Your task to perform on an android device: turn on airplane mode Image 0: 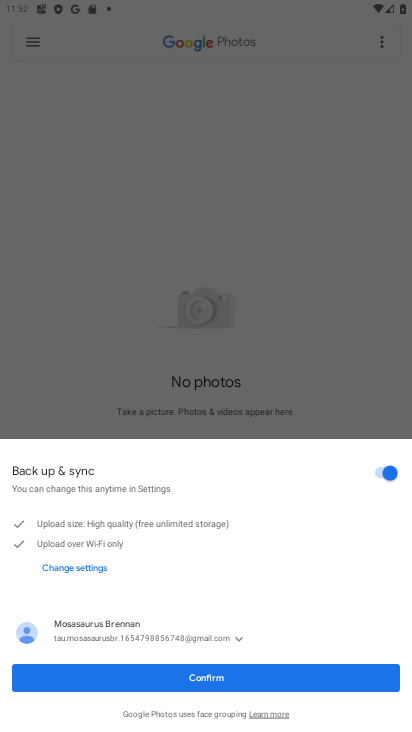
Step 0: press home button
Your task to perform on an android device: turn on airplane mode Image 1: 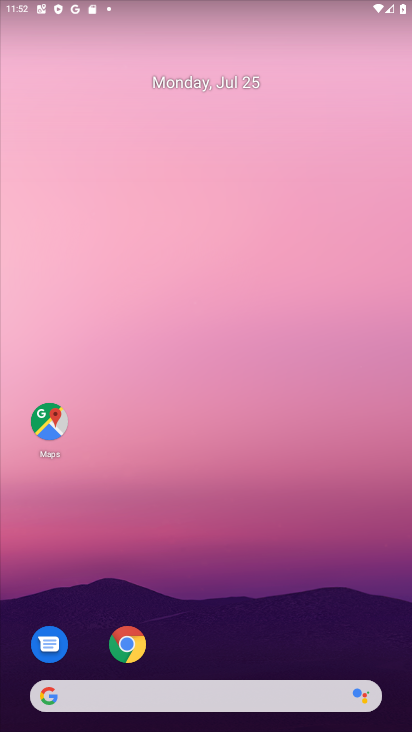
Step 1: drag from (249, 670) to (246, 0)
Your task to perform on an android device: turn on airplane mode Image 2: 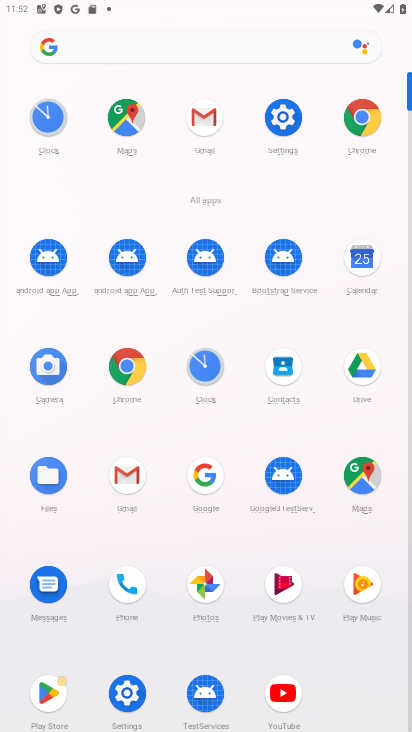
Step 2: click (280, 118)
Your task to perform on an android device: turn on airplane mode Image 3: 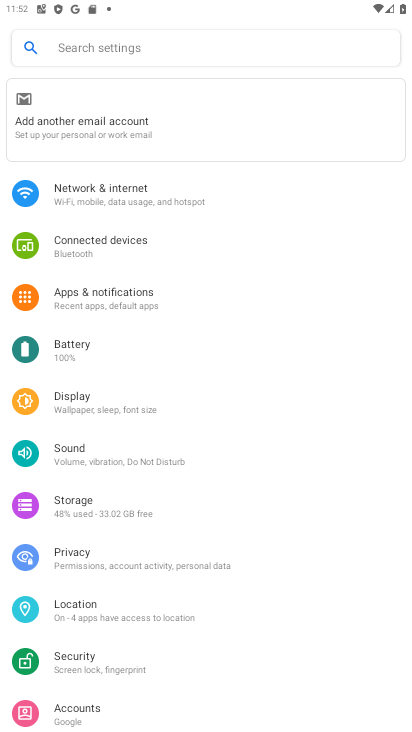
Step 3: click (111, 198)
Your task to perform on an android device: turn on airplane mode Image 4: 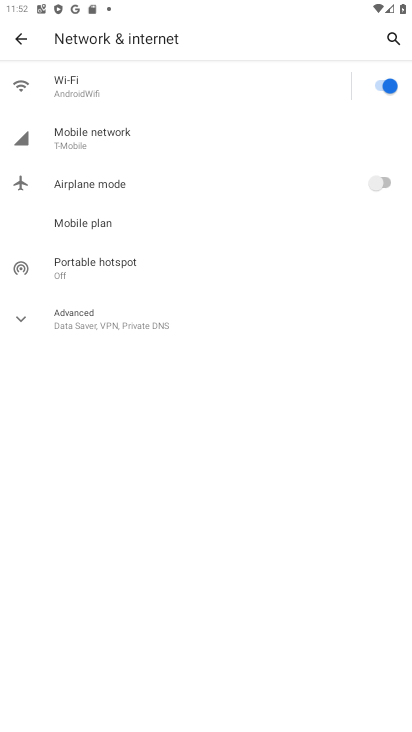
Step 4: click (378, 190)
Your task to perform on an android device: turn on airplane mode Image 5: 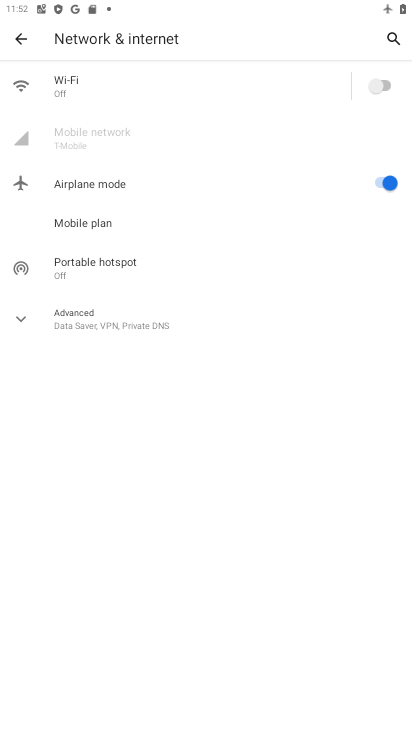
Step 5: task complete